Your task to perform on an android device: add a contact in the contacts app Image 0: 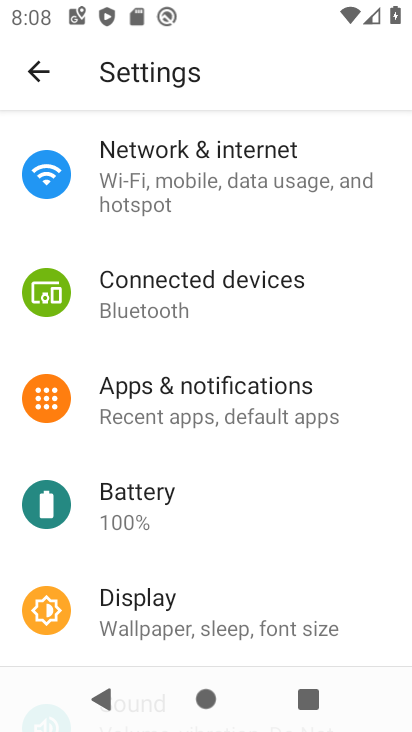
Step 0: press home button
Your task to perform on an android device: add a contact in the contacts app Image 1: 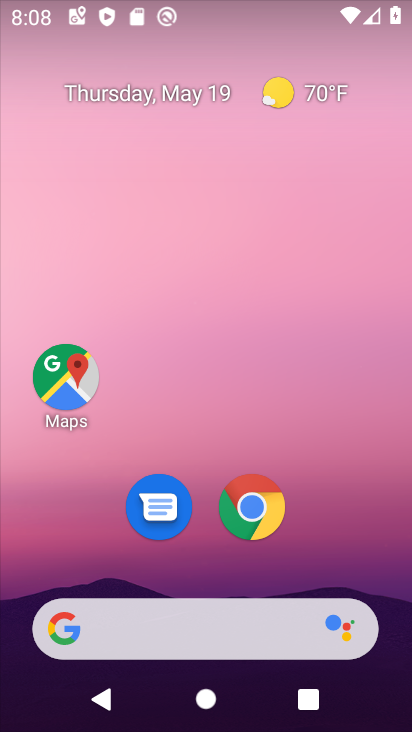
Step 1: drag from (211, 574) to (211, 199)
Your task to perform on an android device: add a contact in the contacts app Image 2: 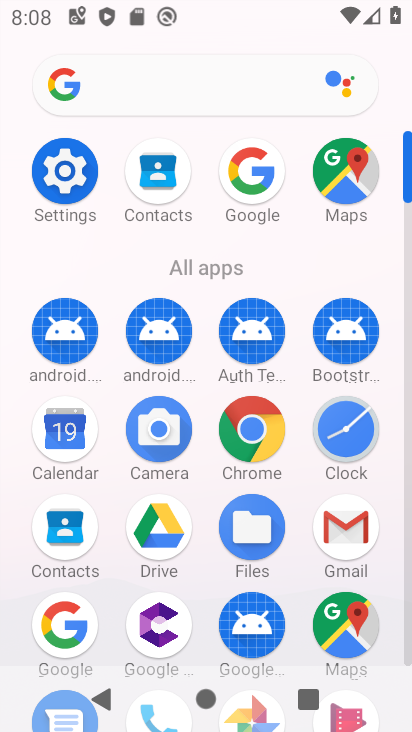
Step 2: click (57, 524)
Your task to perform on an android device: add a contact in the contacts app Image 3: 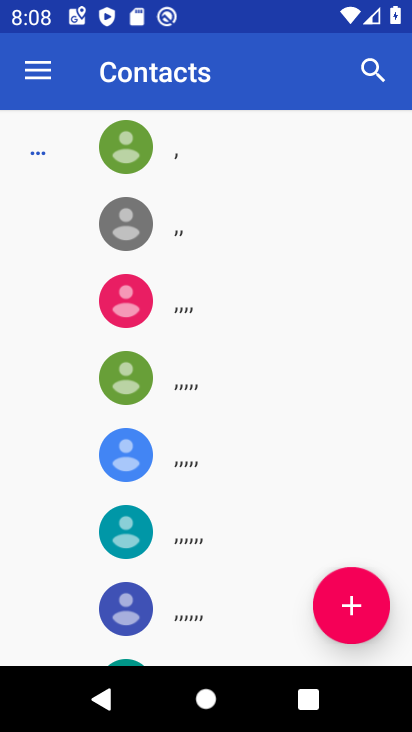
Step 3: click (351, 591)
Your task to perform on an android device: add a contact in the contacts app Image 4: 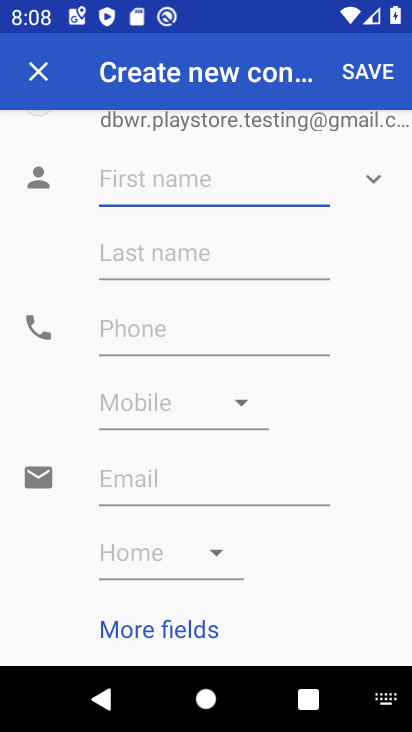
Step 4: type "ffu"
Your task to perform on an android device: add a contact in the contacts app Image 5: 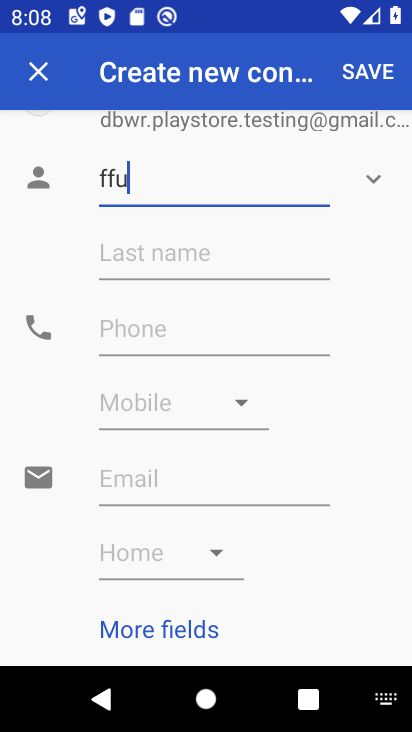
Step 5: click (142, 338)
Your task to perform on an android device: add a contact in the contacts app Image 6: 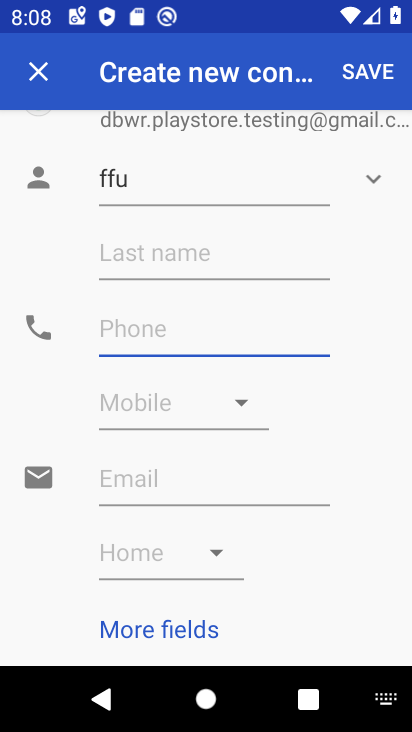
Step 6: type "8759678990"
Your task to perform on an android device: add a contact in the contacts app Image 7: 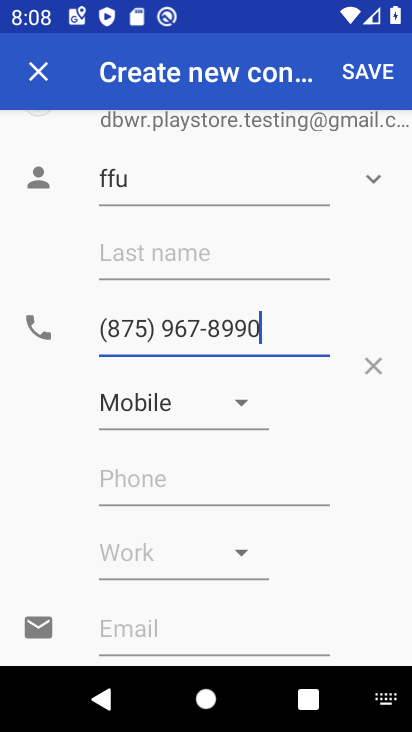
Step 7: click (356, 76)
Your task to perform on an android device: add a contact in the contacts app Image 8: 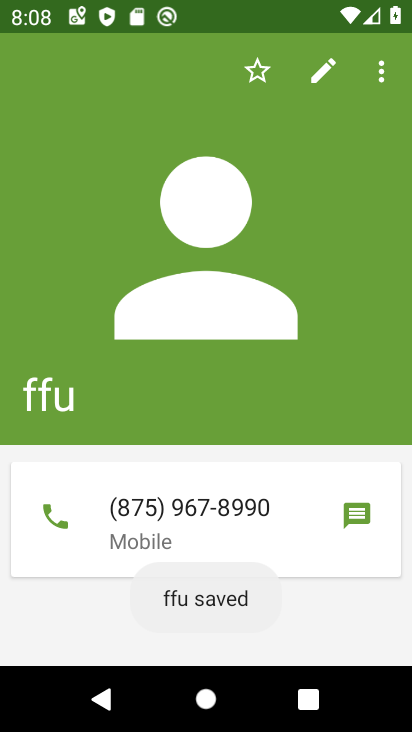
Step 8: task complete